Your task to perform on an android device: delete the emails in spam in the gmail app Image 0: 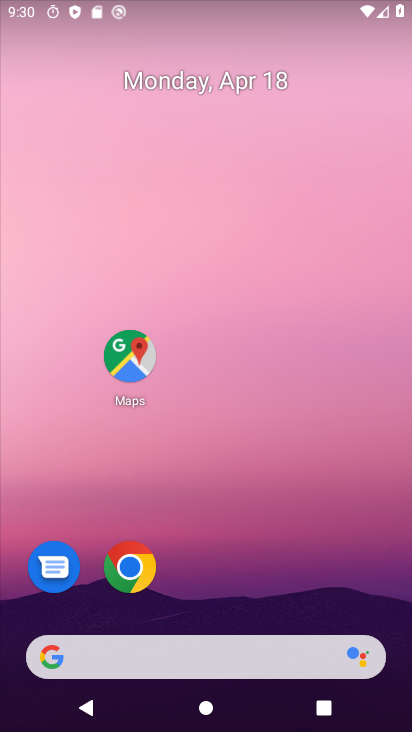
Step 0: click (265, 407)
Your task to perform on an android device: delete the emails in spam in the gmail app Image 1: 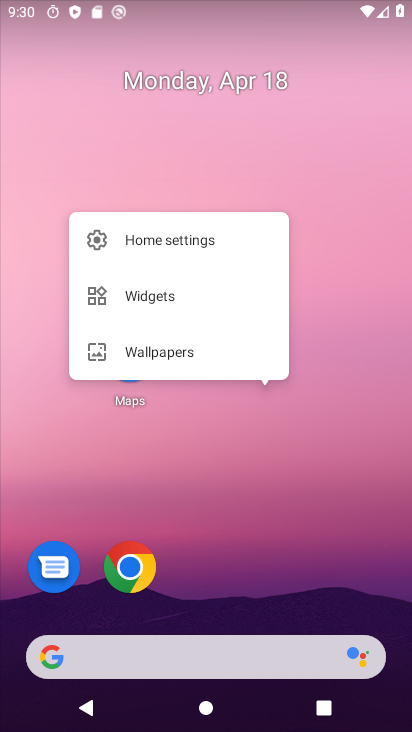
Step 1: drag from (252, 700) to (405, 207)
Your task to perform on an android device: delete the emails in spam in the gmail app Image 2: 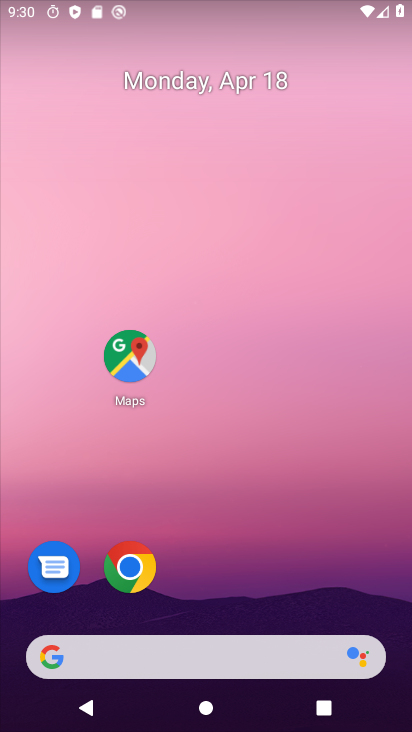
Step 2: drag from (258, 692) to (392, 289)
Your task to perform on an android device: delete the emails in spam in the gmail app Image 3: 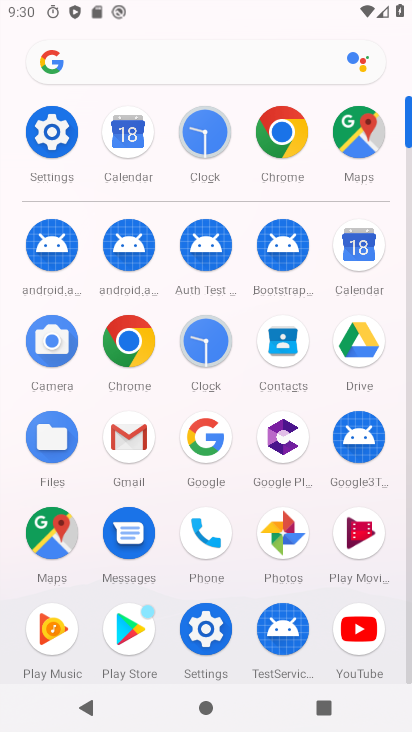
Step 3: click (135, 442)
Your task to perform on an android device: delete the emails in spam in the gmail app Image 4: 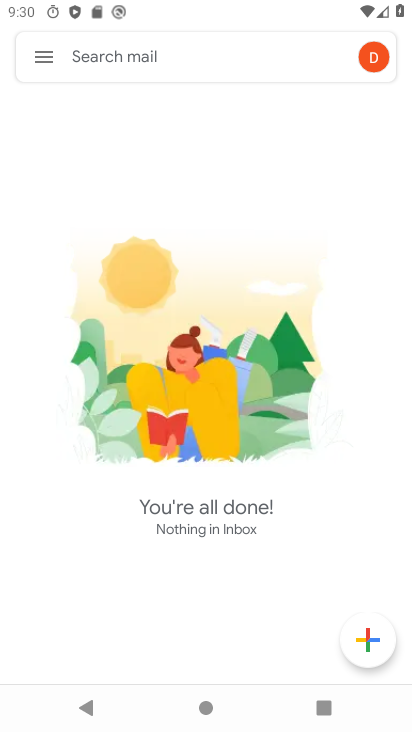
Step 4: click (41, 39)
Your task to perform on an android device: delete the emails in spam in the gmail app Image 5: 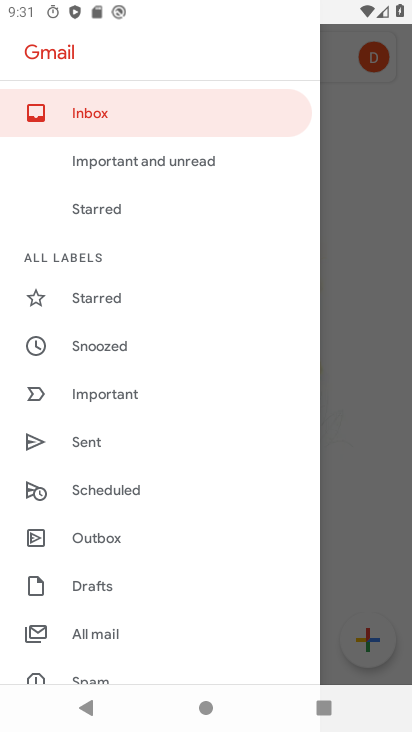
Step 5: click (103, 677)
Your task to perform on an android device: delete the emails in spam in the gmail app Image 6: 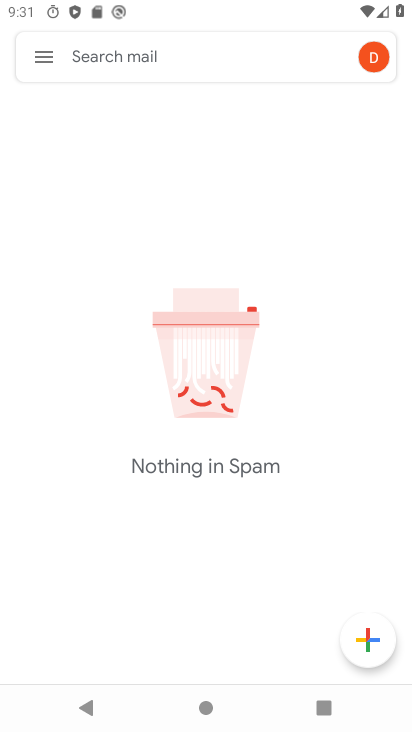
Step 6: click (39, 59)
Your task to perform on an android device: delete the emails in spam in the gmail app Image 7: 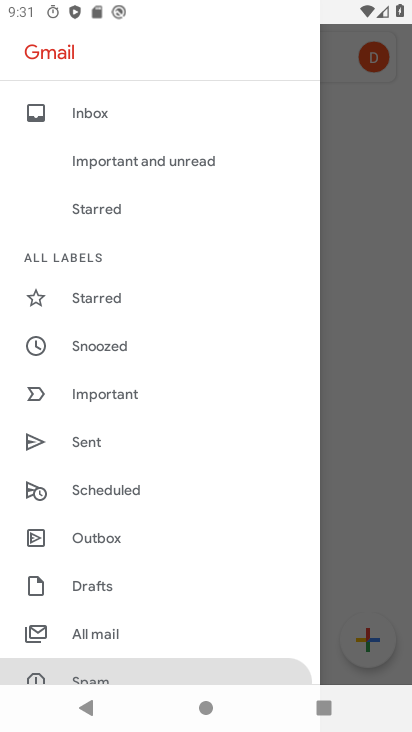
Step 7: click (99, 680)
Your task to perform on an android device: delete the emails in spam in the gmail app Image 8: 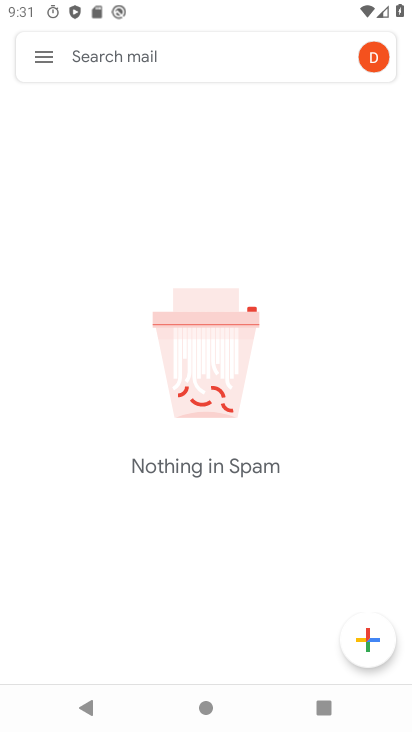
Step 8: task complete